Your task to perform on an android device: Search for flights from NYC to Barcelona Image 0: 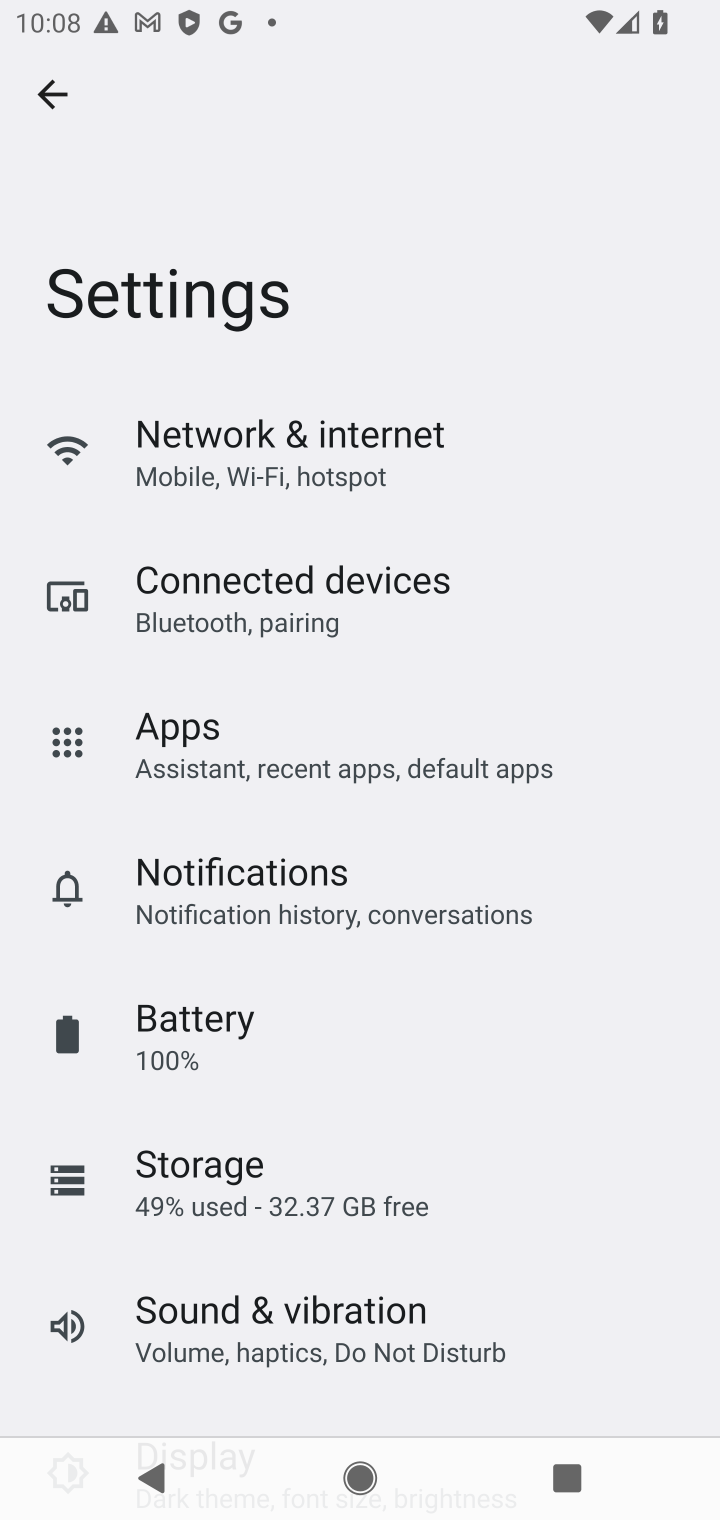
Step 0: press home button
Your task to perform on an android device: Search for flights from NYC to Barcelona Image 1: 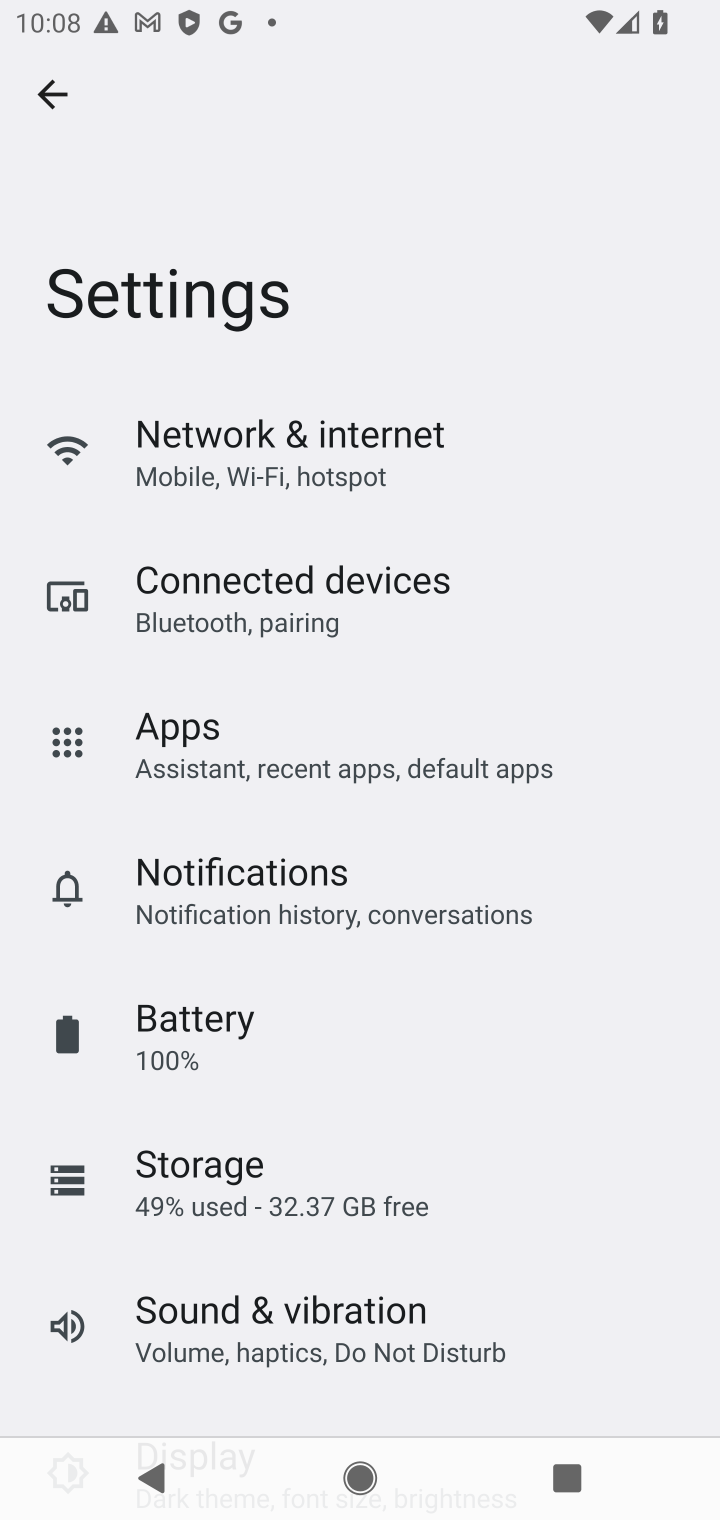
Step 1: press home button
Your task to perform on an android device: Search for flights from NYC to Barcelona Image 2: 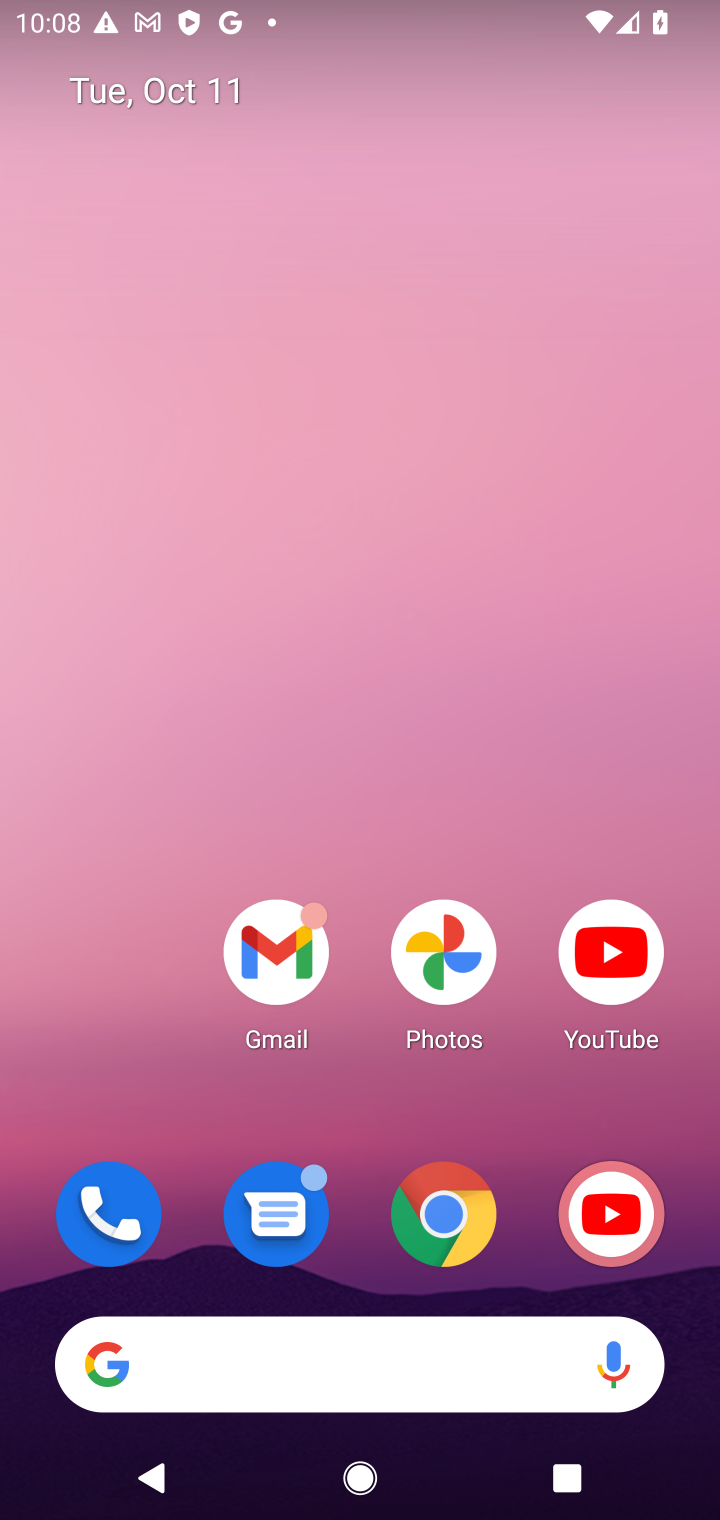
Step 2: drag from (433, 1006) to (420, 13)
Your task to perform on an android device: Search for flights from NYC to Barcelona Image 3: 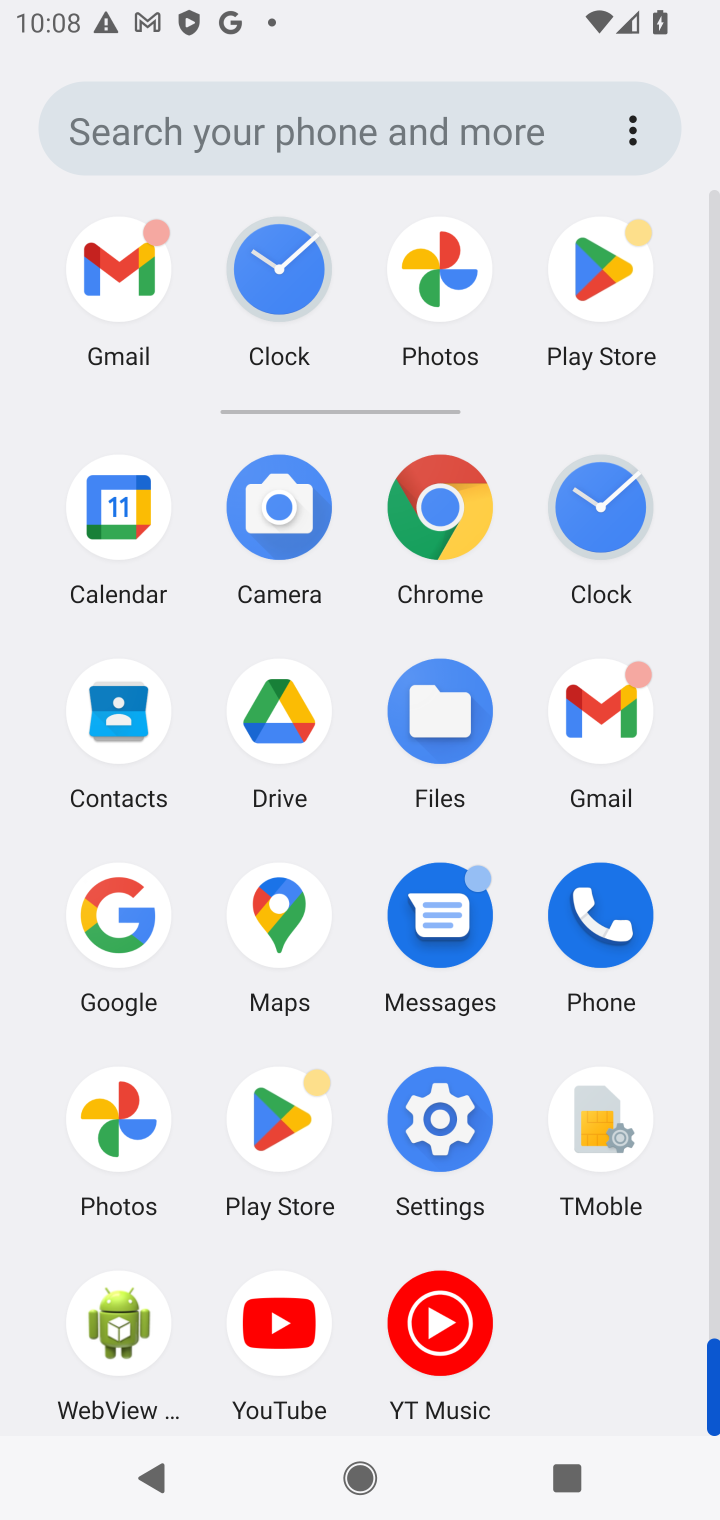
Step 3: click (448, 509)
Your task to perform on an android device: Search for flights from NYC to Barcelona Image 4: 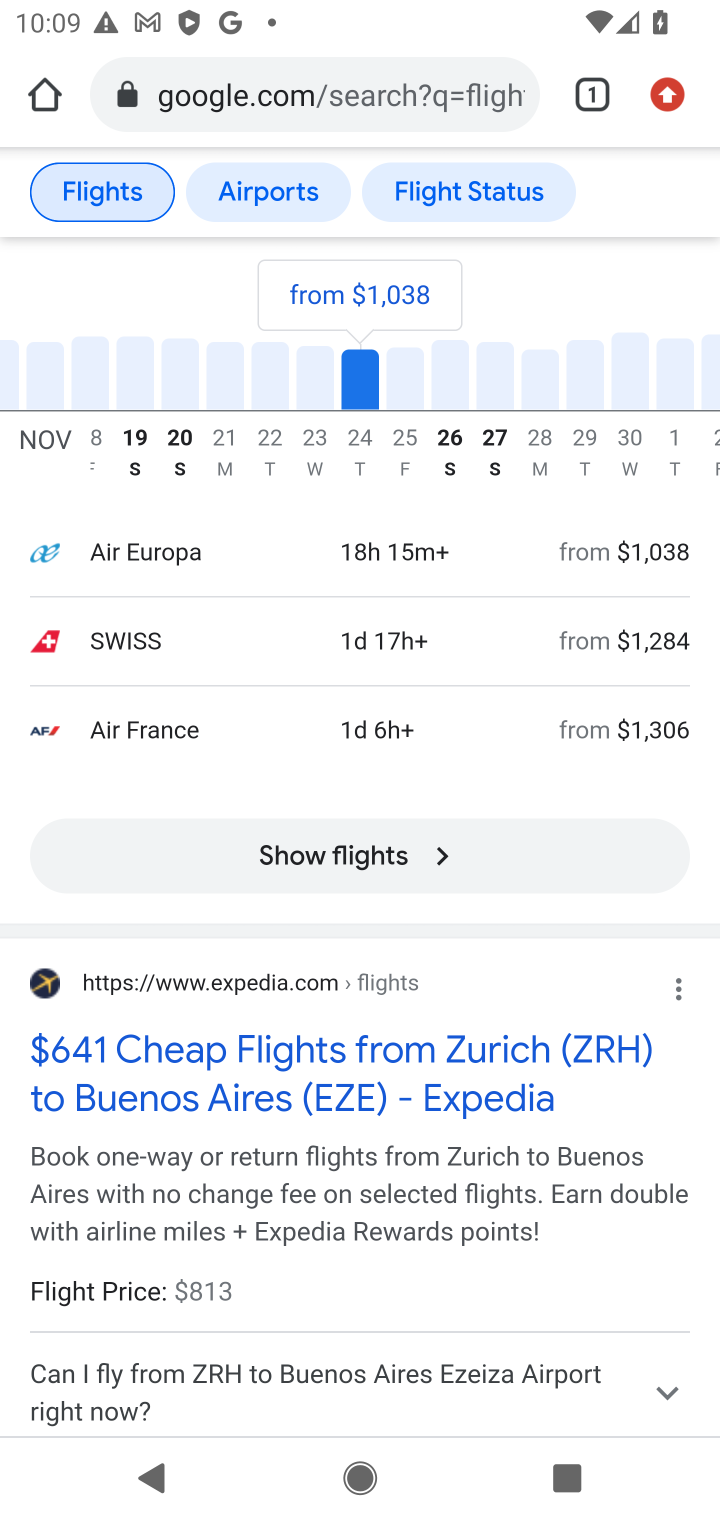
Step 4: click (370, 90)
Your task to perform on an android device: Search for flights from NYC to Barcelona Image 5: 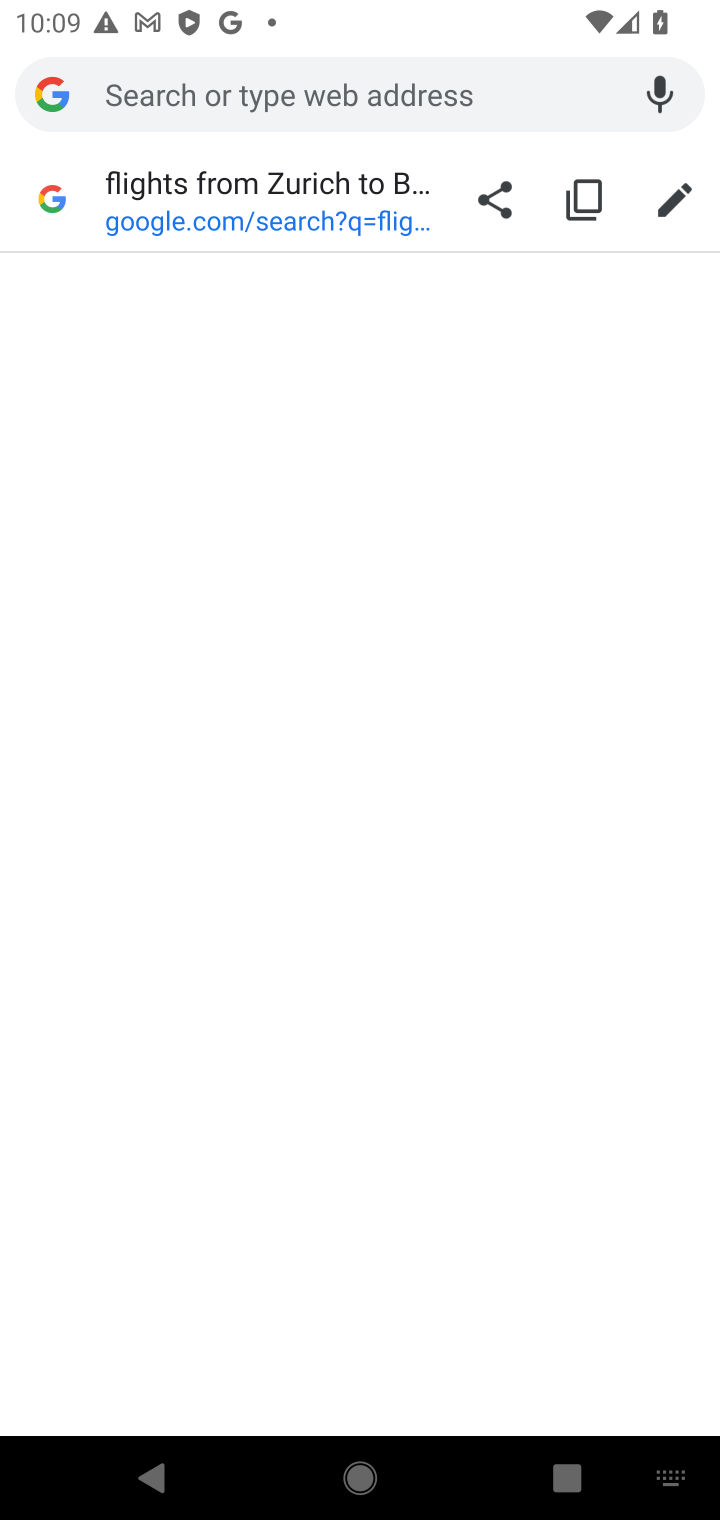
Step 5: type "flights from NYC to Barcelona"
Your task to perform on an android device: Search for flights from NYC to Barcelona Image 6: 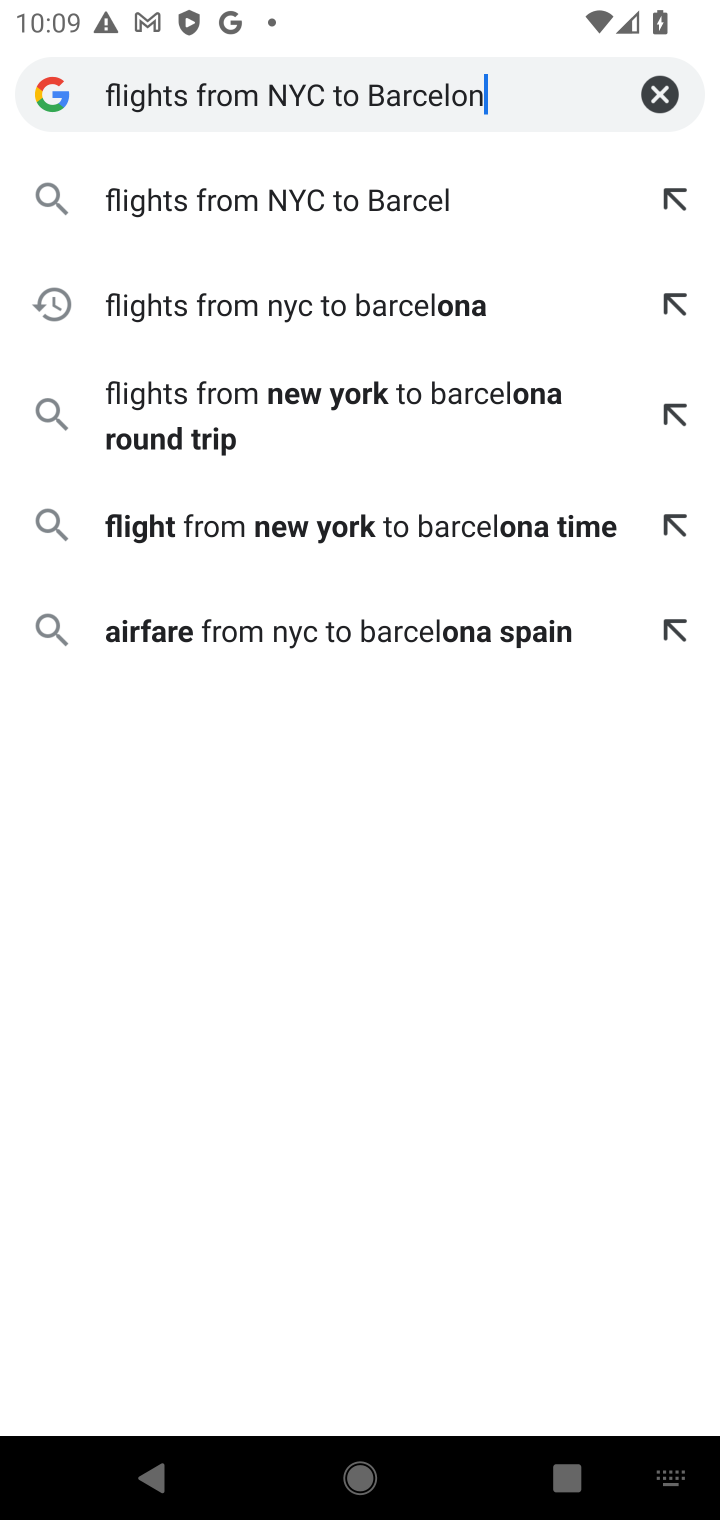
Step 6: press enter
Your task to perform on an android device: Search for flights from NYC to Barcelona Image 7: 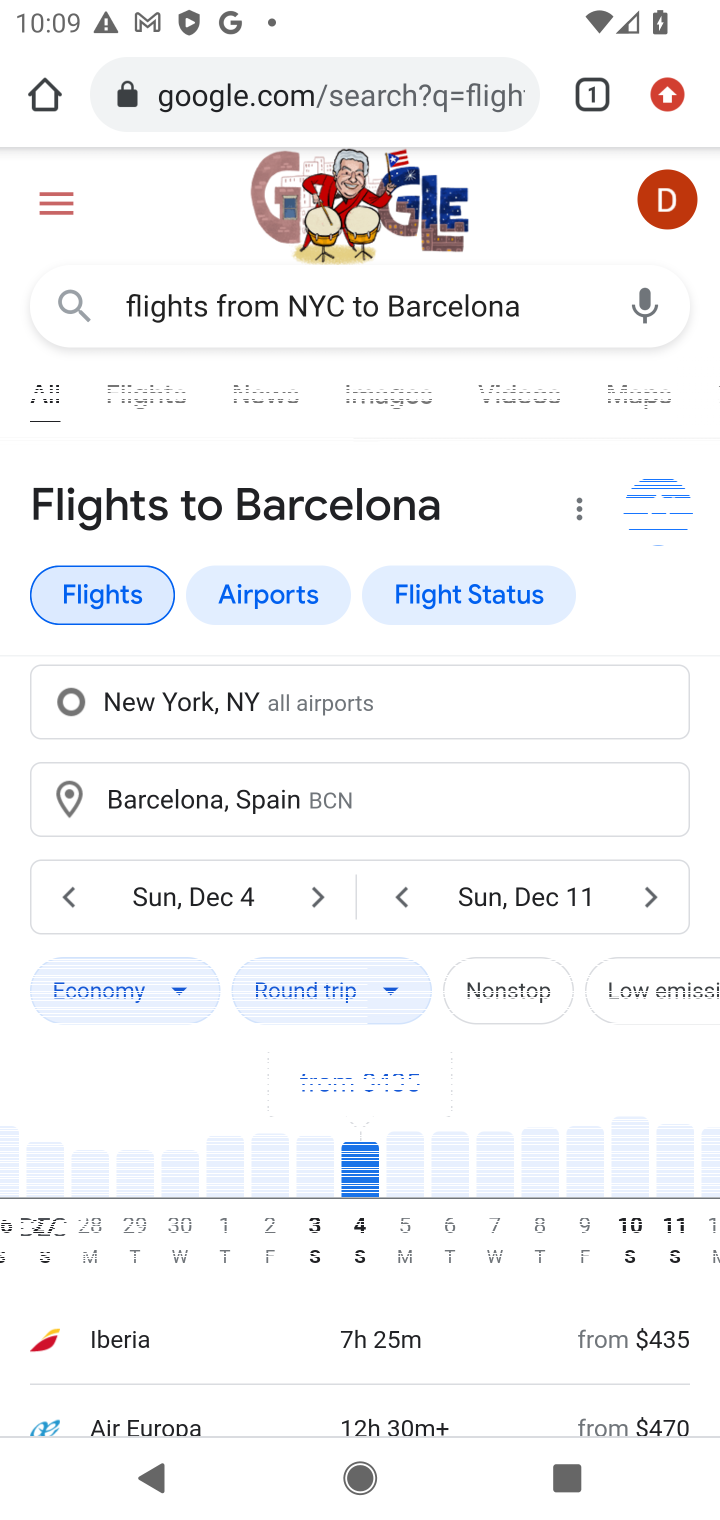
Step 7: task complete